Your task to perform on an android device: What is the recent news? Image 0: 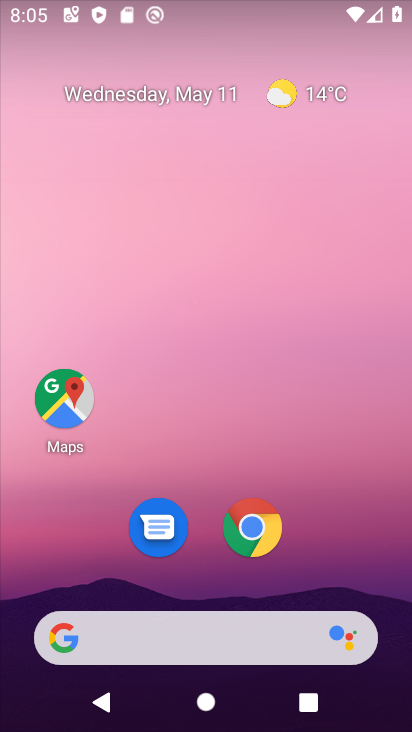
Step 0: click (117, 637)
Your task to perform on an android device: What is the recent news? Image 1: 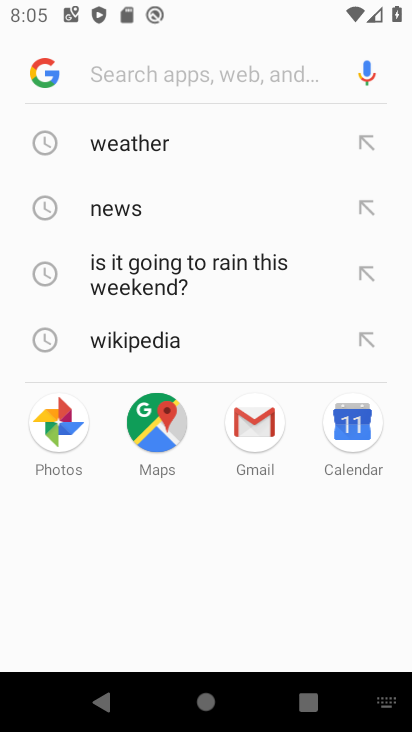
Step 1: click (126, 80)
Your task to perform on an android device: What is the recent news? Image 2: 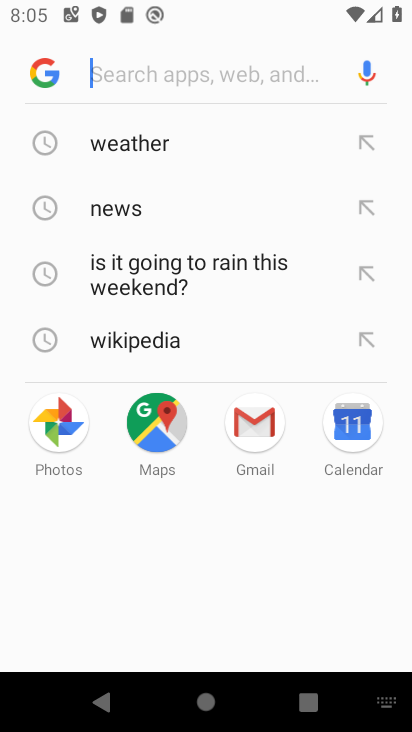
Step 2: type "recent news"
Your task to perform on an android device: What is the recent news? Image 3: 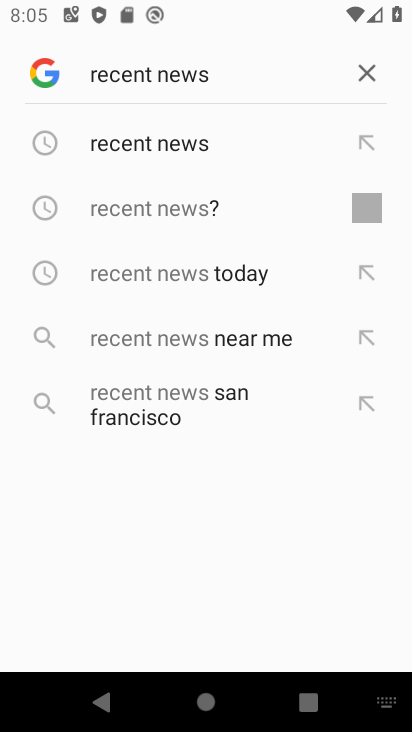
Step 3: click (173, 146)
Your task to perform on an android device: What is the recent news? Image 4: 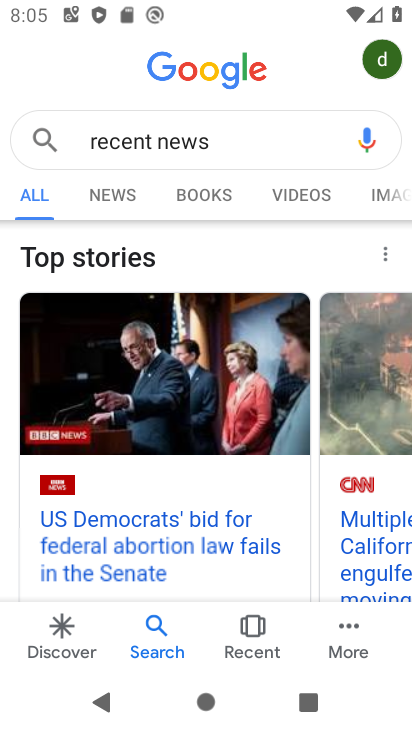
Step 4: drag from (183, 514) to (199, 335)
Your task to perform on an android device: What is the recent news? Image 5: 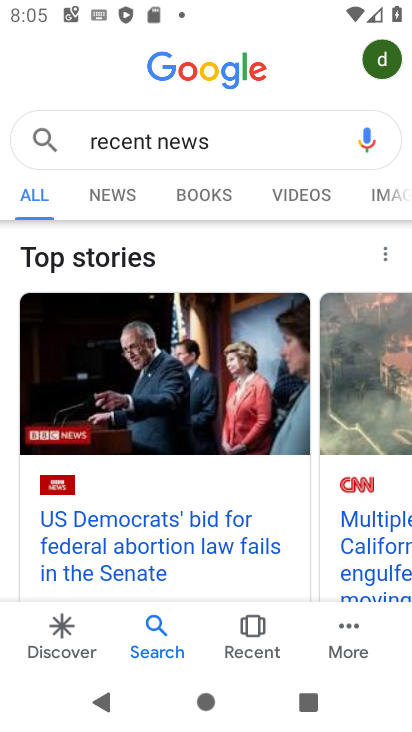
Step 5: drag from (222, 502) to (207, 259)
Your task to perform on an android device: What is the recent news? Image 6: 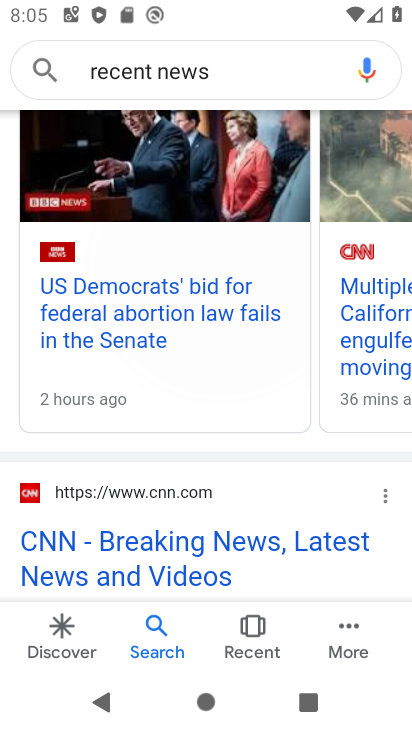
Step 6: drag from (186, 479) to (162, 665)
Your task to perform on an android device: What is the recent news? Image 7: 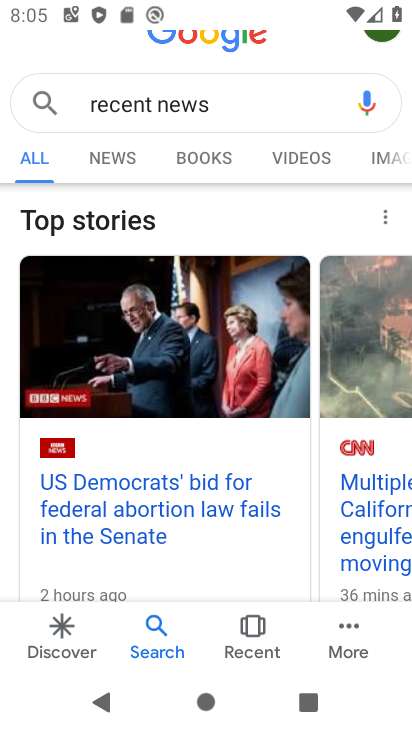
Step 7: click (123, 162)
Your task to perform on an android device: What is the recent news? Image 8: 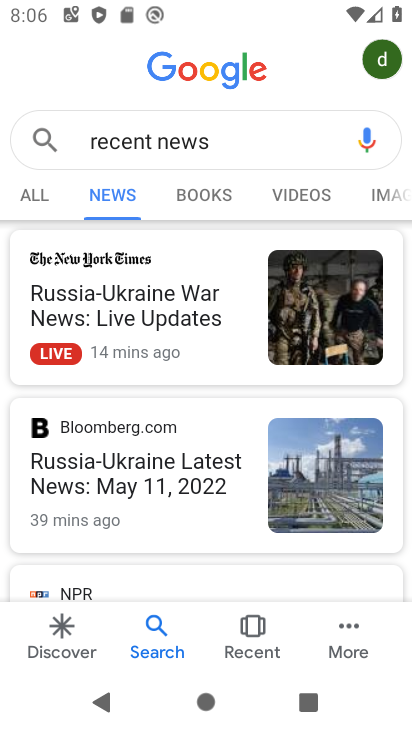
Step 8: click (137, 324)
Your task to perform on an android device: What is the recent news? Image 9: 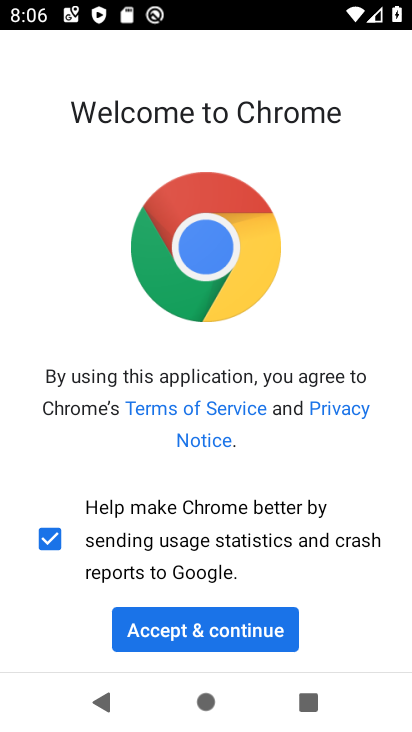
Step 9: click (194, 623)
Your task to perform on an android device: What is the recent news? Image 10: 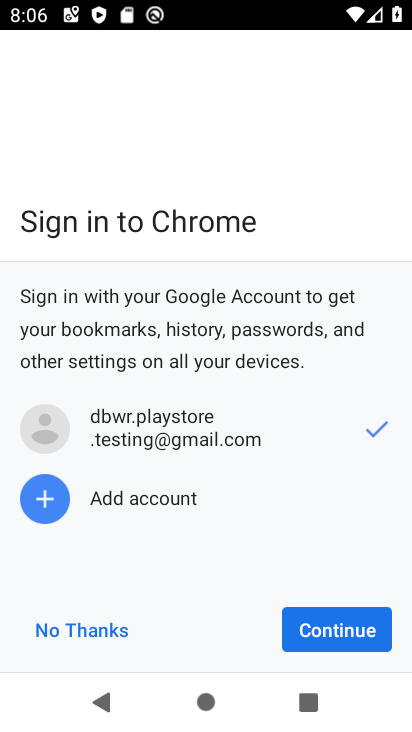
Step 10: click (112, 623)
Your task to perform on an android device: What is the recent news? Image 11: 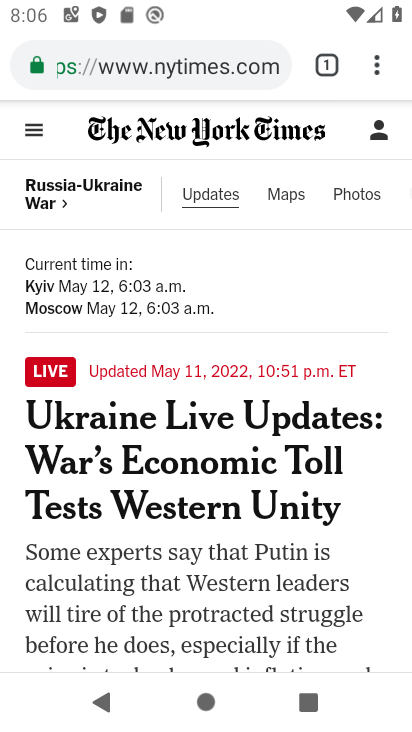
Step 11: task complete